Your task to perform on an android device: check out phone information Image 0: 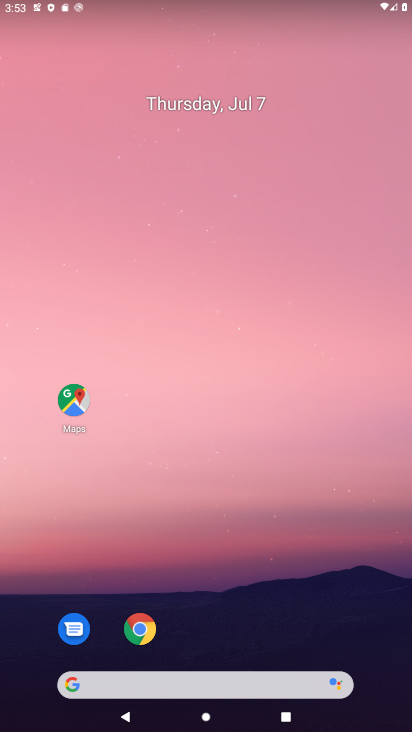
Step 0: drag from (236, 629) to (235, 108)
Your task to perform on an android device: check out phone information Image 1: 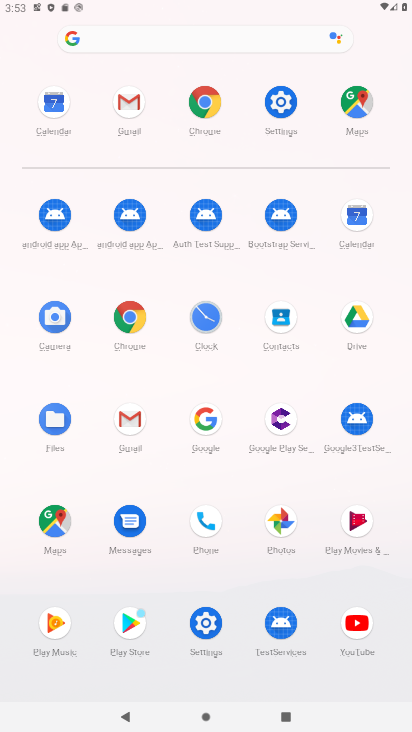
Step 1: click (278, 95)
Your task to perform on an android device: check out phone information Image 2: 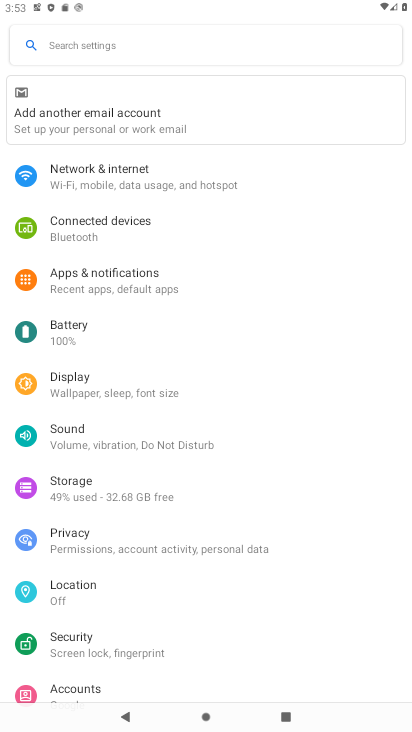
Step 2: drag from (195, 540) to (204, 26)
Your task to perform on an android device: check out phone information Image 3: 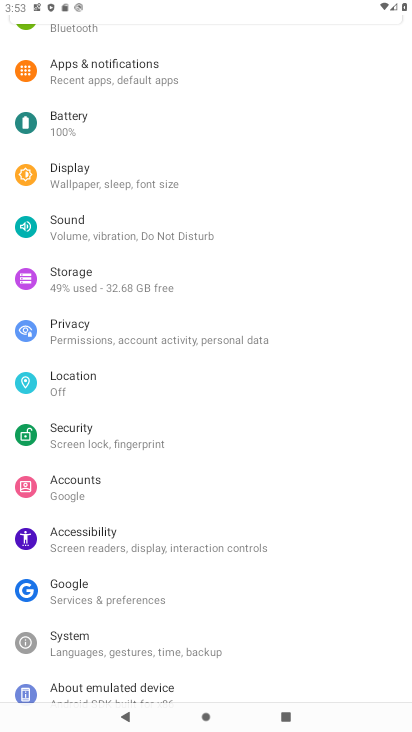
Step 3: drag from (215, 578) to (197, 402)
Your task to perform on an android device: check out phone information Image 4: 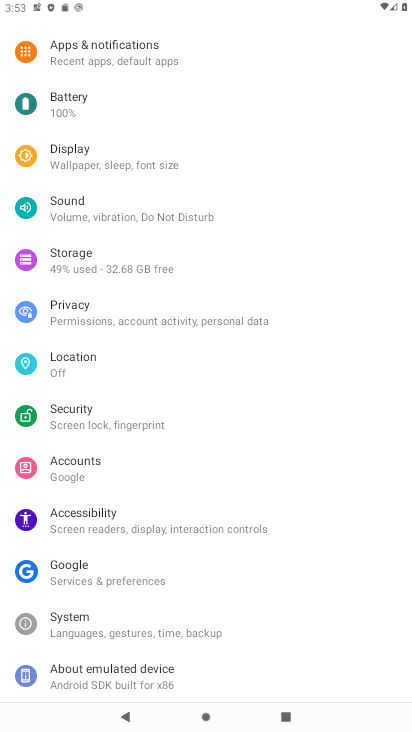
Step 4: click (160, 672)
Your task to perform on an android device: check out phone information Image 5: 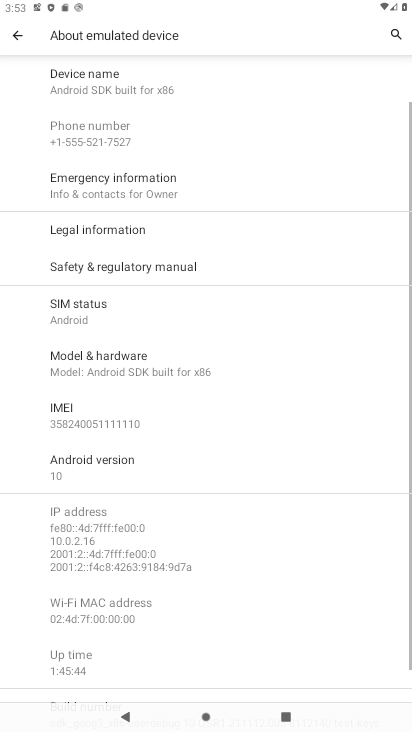
Step 5: task complete